Your task to perform on an android device: change text size in settings app Image 0: 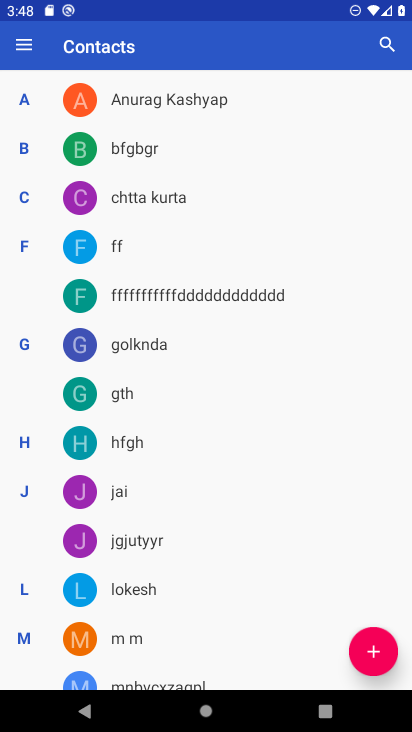
Step 0: press home button
Your task to perform on an android device: change text size in settings app Image 1: 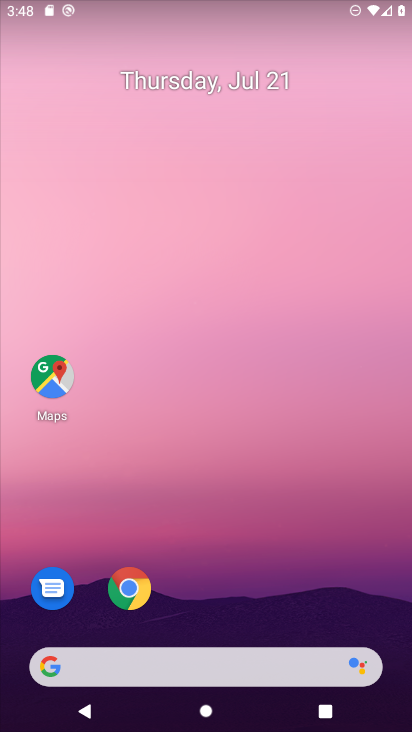
Step 1: drag from (243, 664) to (242, 139)
Your task to perform on an android device: change text size in settings app Image 2: 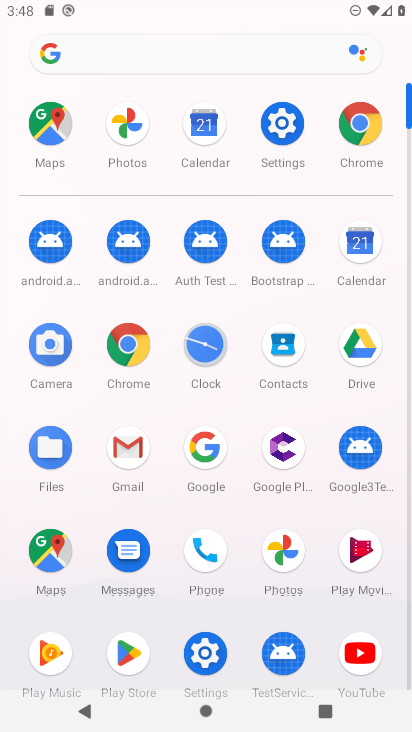
Step 2: click (280, 138)
Your task to perform on an android device: change text size in settings app Image 3: 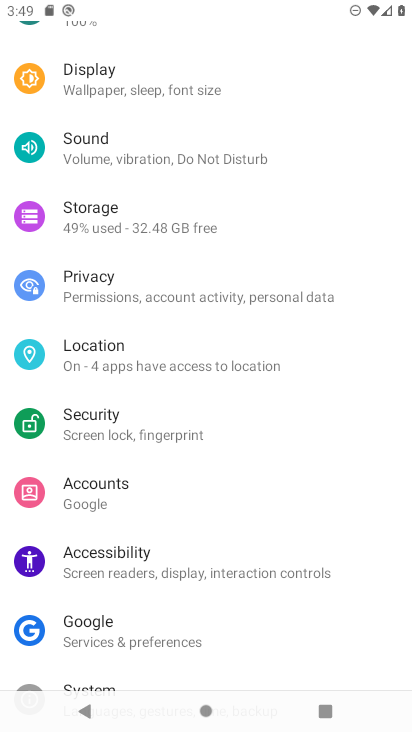
Step 3: click (149, 87)
Your task to perform on an android device: change text size in settings app Image 4: 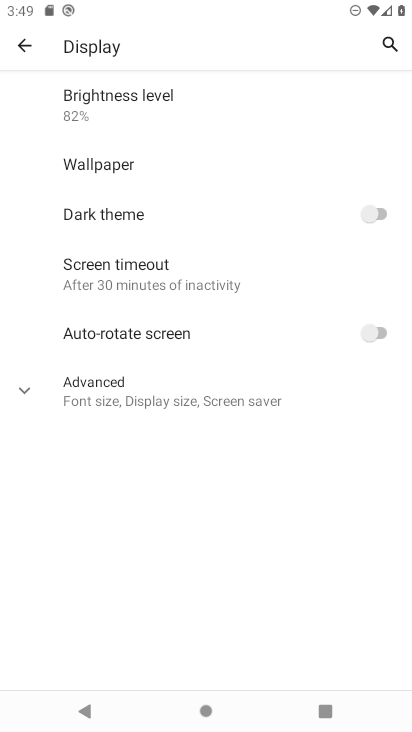
Step 4: click (147, 402)
Your task to perform on an android device: change text size in settings app Image 5: 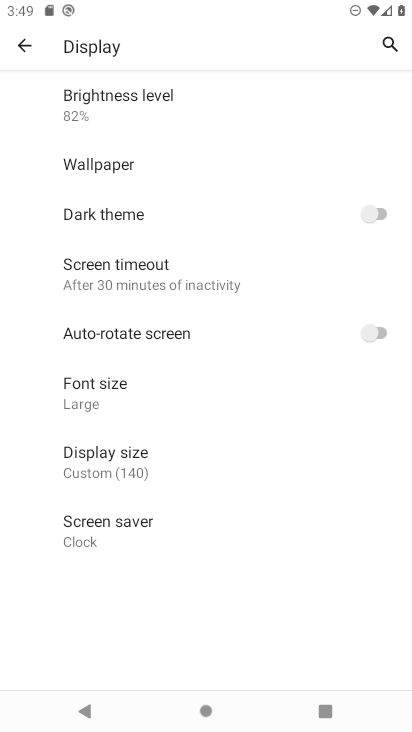
Step 5: click (126, 405)
Your task to perform on an android device: change text size in settings app Image 6: 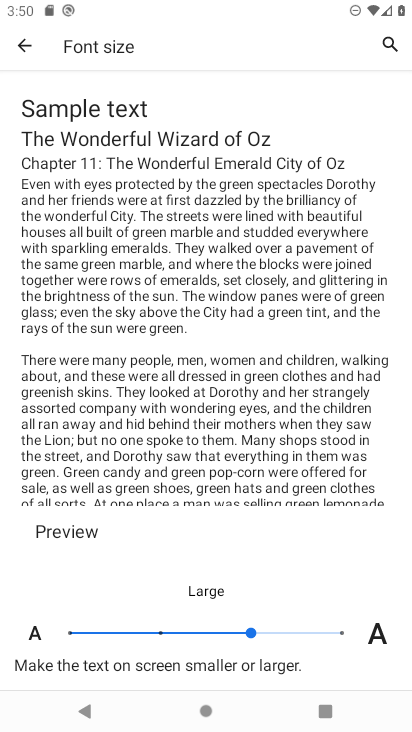
Step 6: click (334, 635)
Your task to perform on an android device: change text size in settings app Image 7: 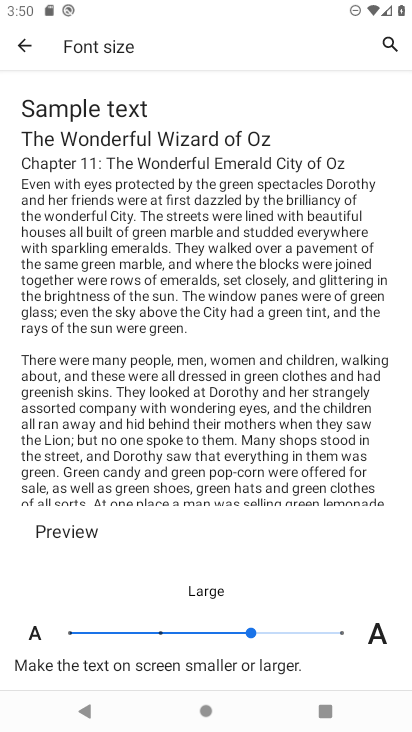
Step 7: click (355, 627)
Your task to perform on an android device: change text size in settings app Image 8: 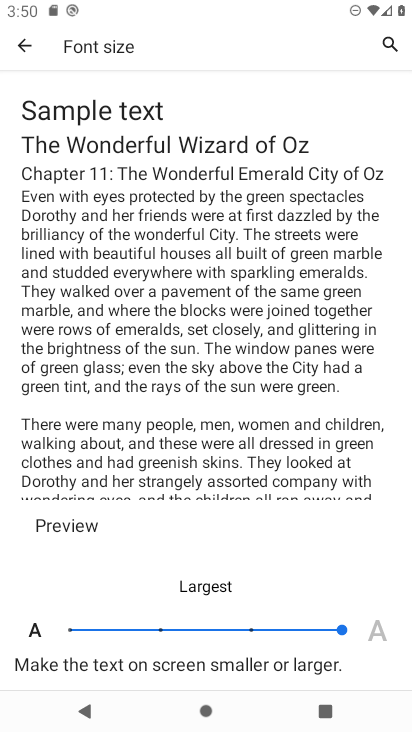
Step 8: task complete